Your task to perform on an android device: Search for Italian restaurants on Maps Image 0: 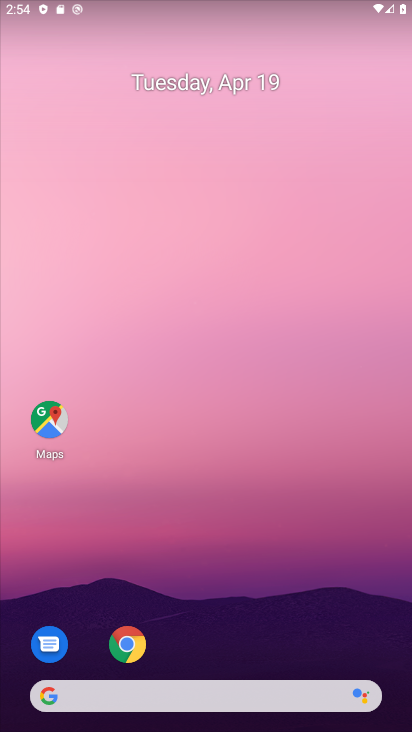
Step 0: click (48, 412)
Your task to perform on an android device: Search for Italian restaurants on Maps Image 1: 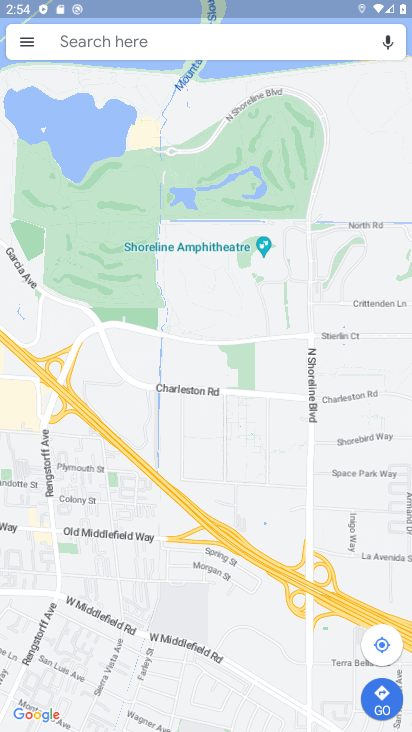
Step 1: click (95, 41)
Your task to perform on an android device: Search for Italian restaurants on Maps Image 2: 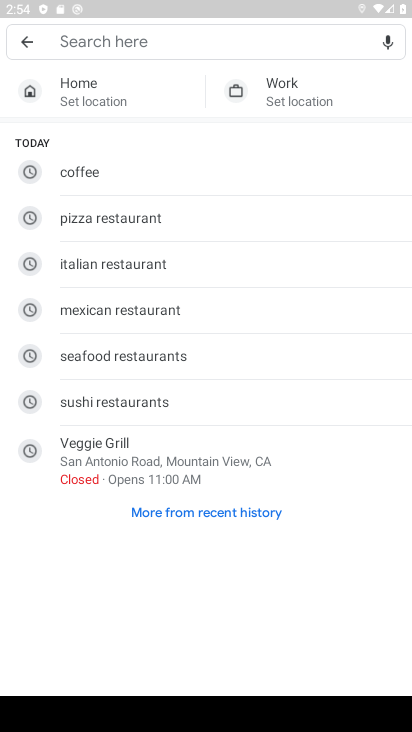
Step 2: type "italian restaurants"
Your task to perform on an android device: Search for Italian restaurants on Maps Image 3: 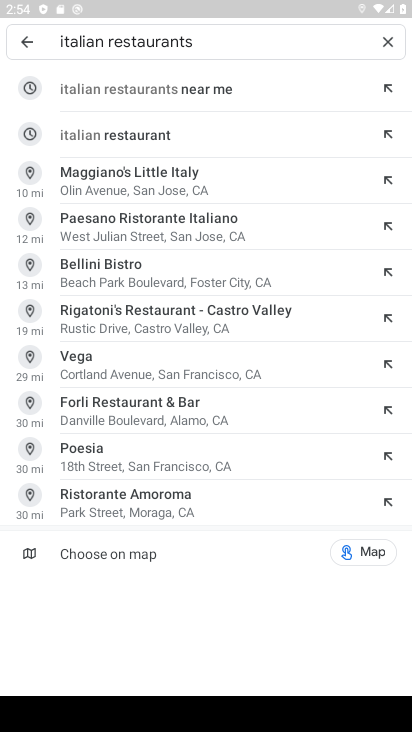
Step 3: click (124, 130)
Your task to perform on an android device: Search for Italian restaurants on Maps Image 4: 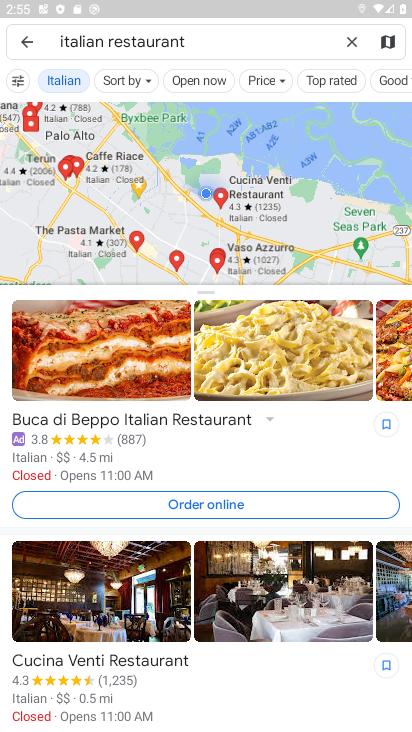
Step 4: task complete